Your task to perform on an android device: open app "Facebook Messenger" (install if not already installed) and enter user name: "divorce@inbox.com" and password: "caviar" Image 0: 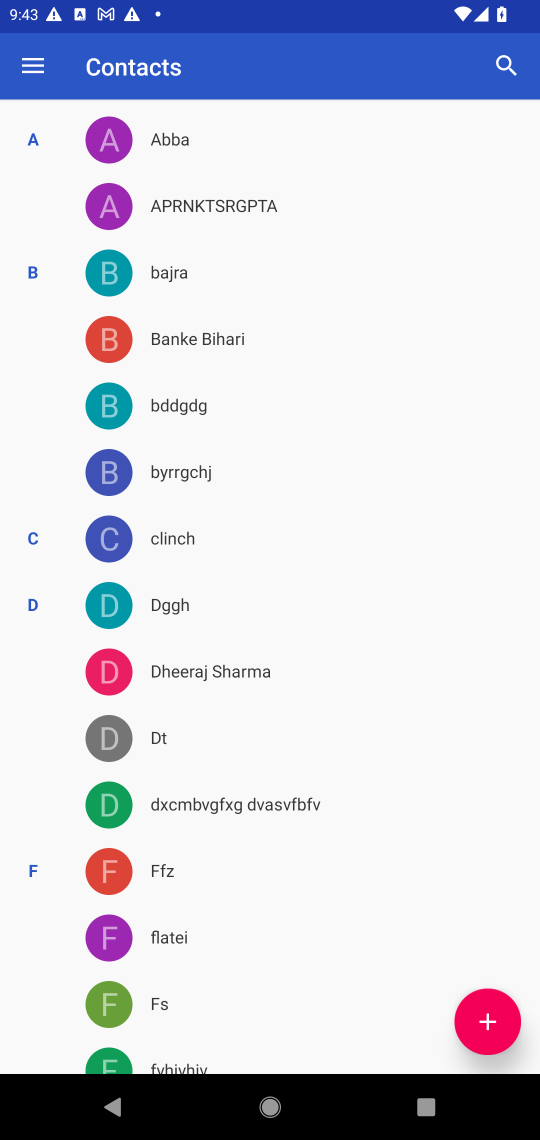
Step 0: press home button
Your task to perform on an android device: open app "Facebook Messenger" (install if not already installed) and enter user name: "divorce@inbox.com" and password: "caviar" Image 1: 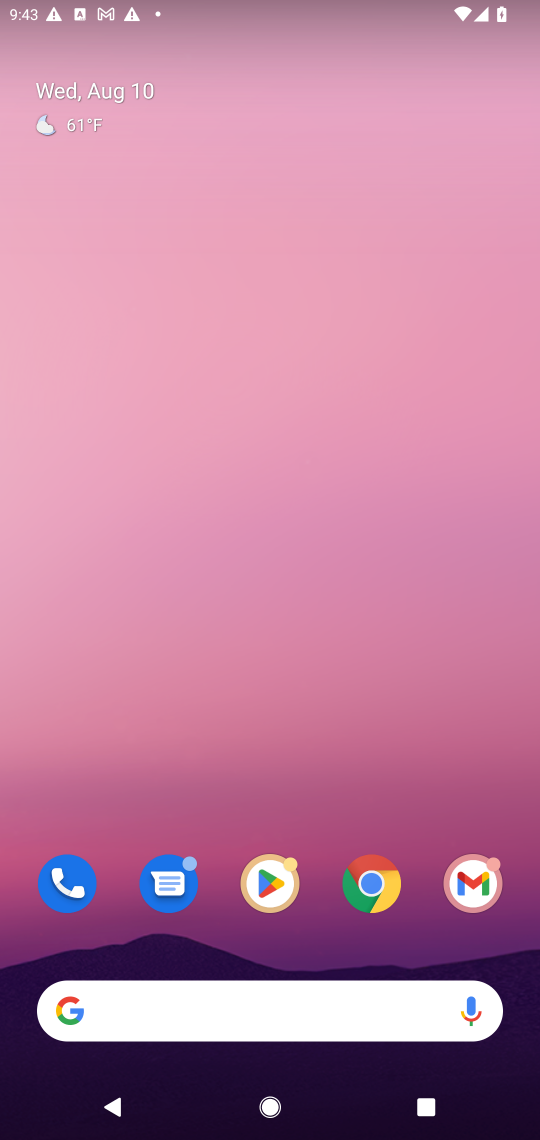
Step 1: click (281, 880)
Your task to perform on an android device: open app "Facebook Messenger" (install if not already installed) and enter user name: "divorce@inbox.com" and password: "caviar" Image 2: 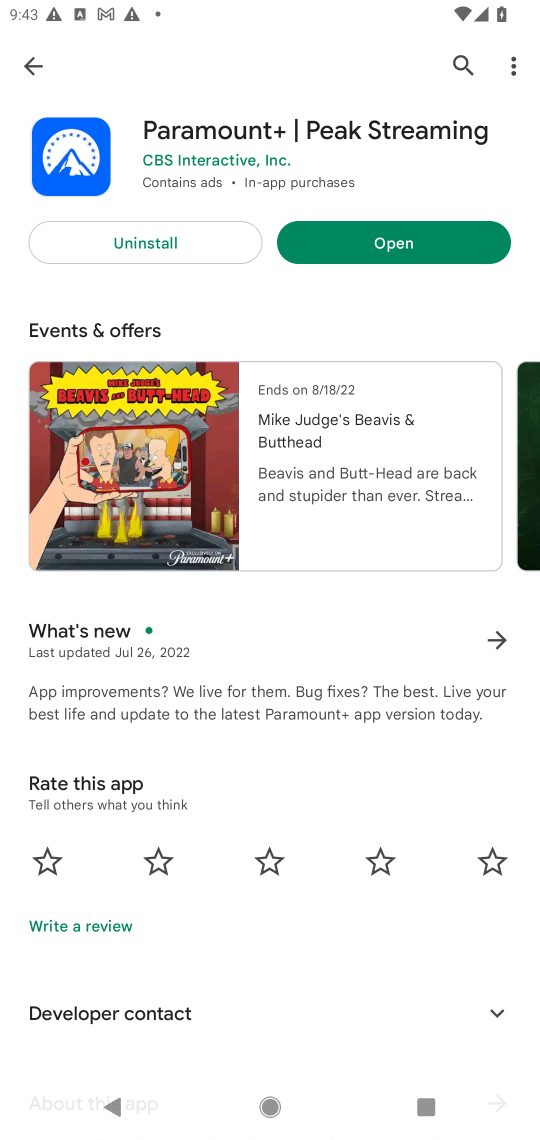
Step 2: click (453, 57)
Your task to perform on an android device: open app "Facebook Messenger" (install if not already installed) and enter user name: "divorce@inbox.com" and password: "caviar" Image 3: 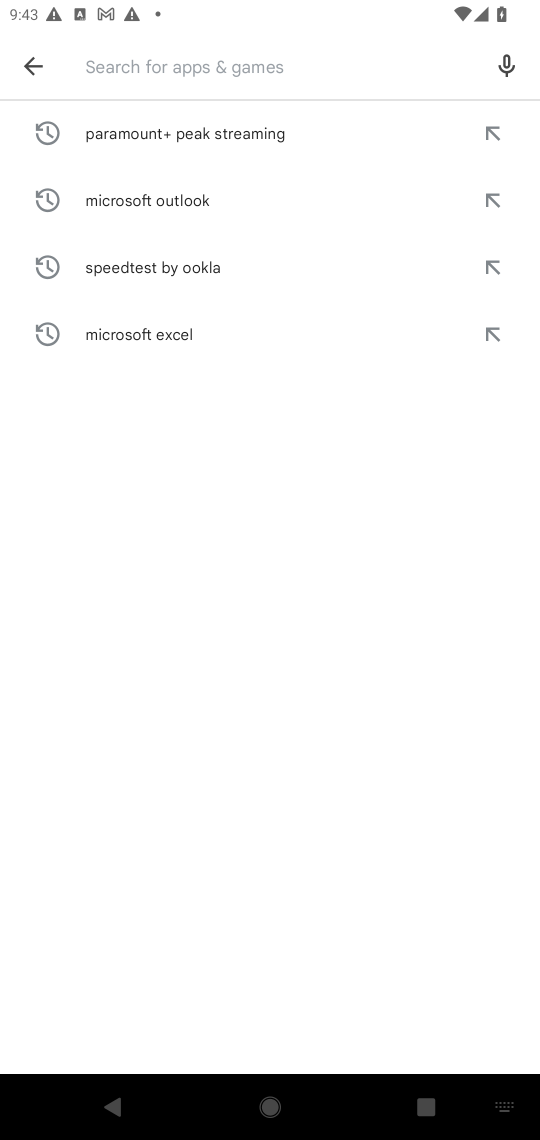
Step 3: type "Facebook Messenger"
Your task to perform on an android device: open app "Facebook Messenger" (install if not already installed) and enter user name: "divorce@inbox.com" and password: "caviar" Image 4: 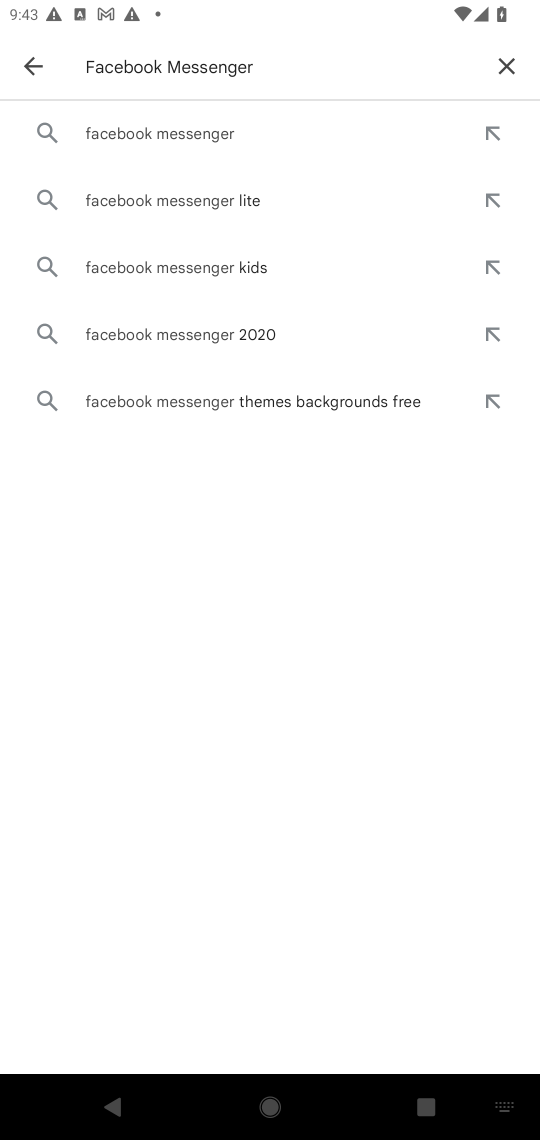
Step 4: click (240, 130)
Your task to perform on an android device: open app "Facebook Messenger" (install if not already installed) and enter user name: "divorce@inbox.com" and password: "caviar" Image 5: 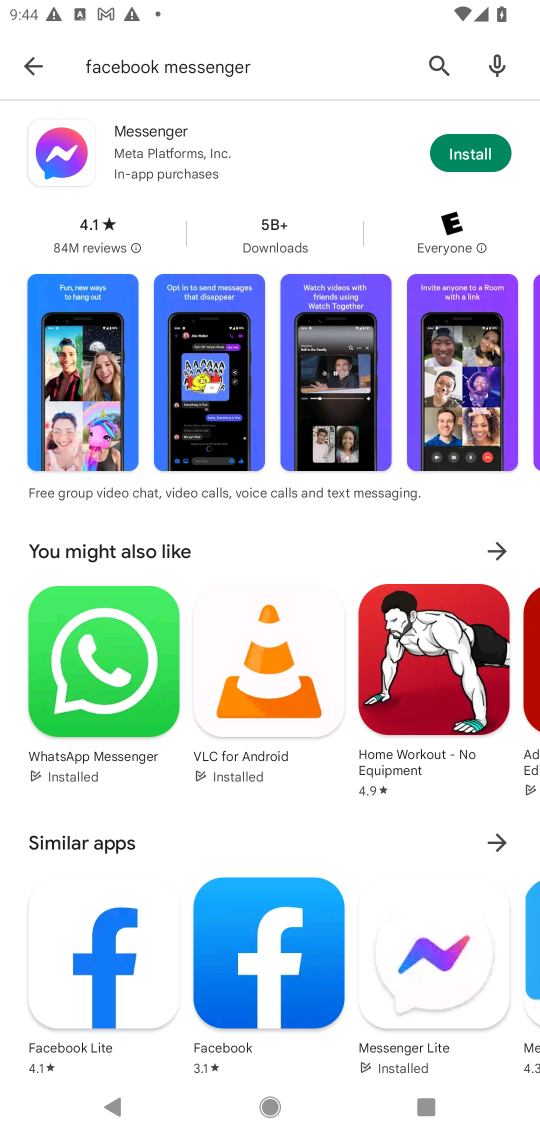
Step 5: click (485, 161)
Your task to perform on an android device: open app "Facebook Messenger" (install if not already installed) and enter user name: "divorce@inbox.com" and password: "caviar" Image 6: 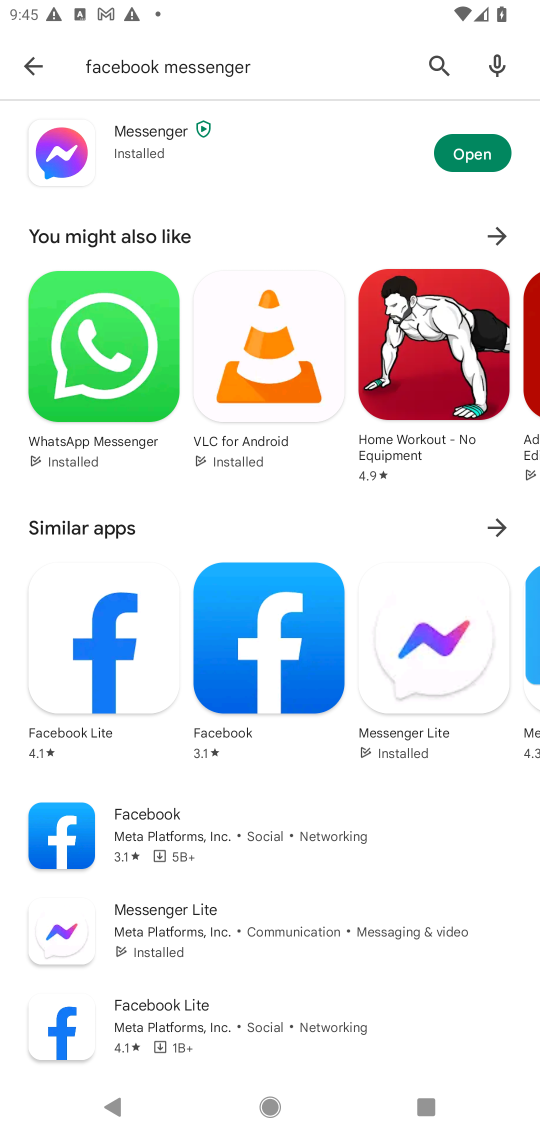
Step 6: click (460, 156)
Your task to perform on an android device: open app "Facebook Messenger" (install if not already installed) and enter user name: "divorce@inbox.com" and password: "caviar" Image 7: 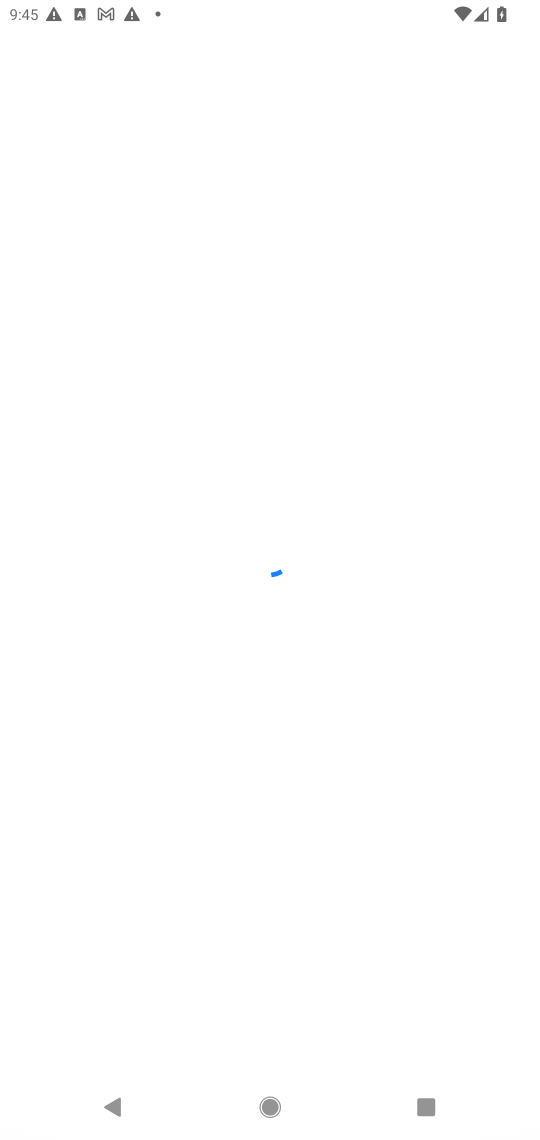
Step 7: task complete